Your task to perform on an android device: Show me recent news Image 0: 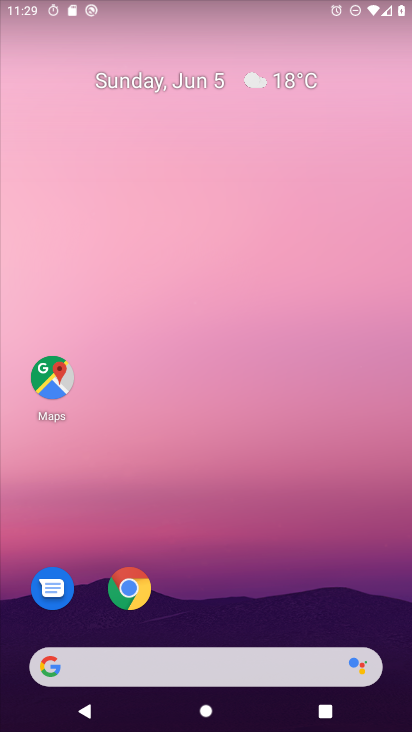
Step 0: drag from (7, 212) to (388, 283)
Your task to perform on an android device: Show me recent news Image 1: 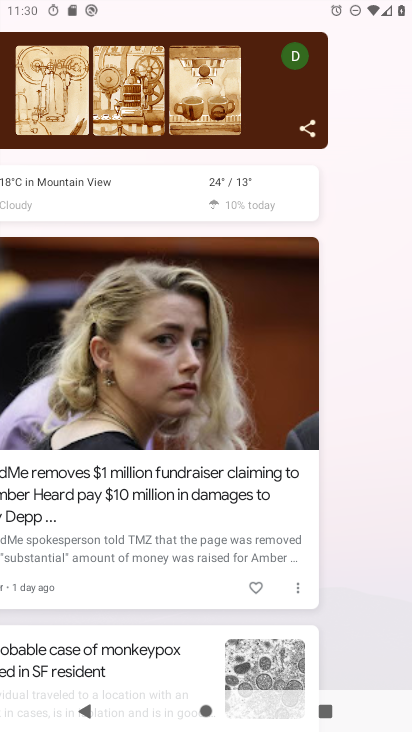
Step 1: task complete